Your task to perform on an android device: toggle javascript in the chrome app Image 0: 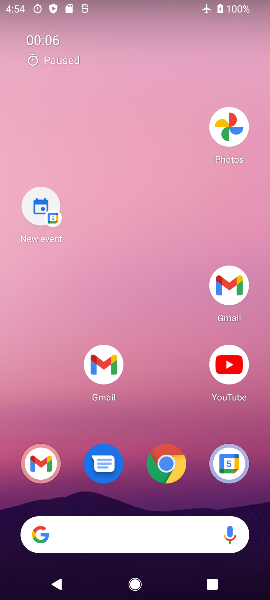
Step 0: click (178, 37)
Your task to perform on an android device: toggle javascript in the chrome app Image 1: 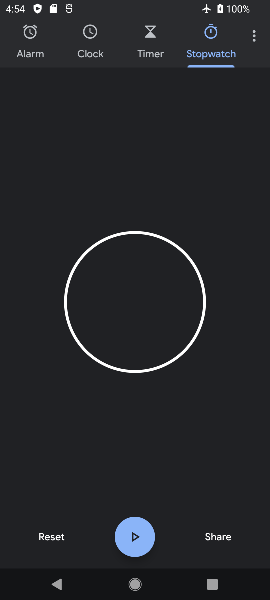
Step 1: press back button
Your task to perform on an android device: toggle javascript in the chrome app Image 2: 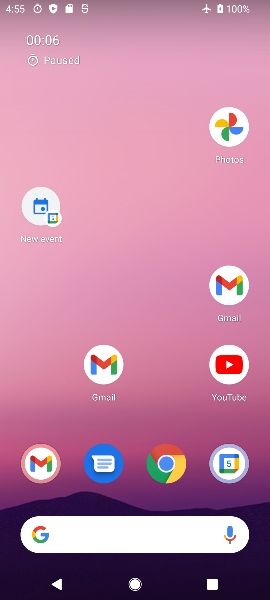
Step 2: drag from (182, 310) to (185, 133)
Your task to perform on an android device: toggle javascript in the chrome app Image 3: 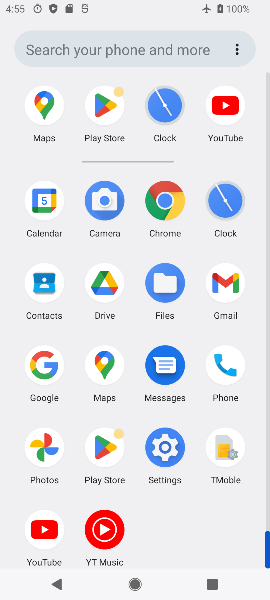
Step 3: click (165, 201)
Your task to perform on an android device: toggle javascript in the chrome app Image 4: 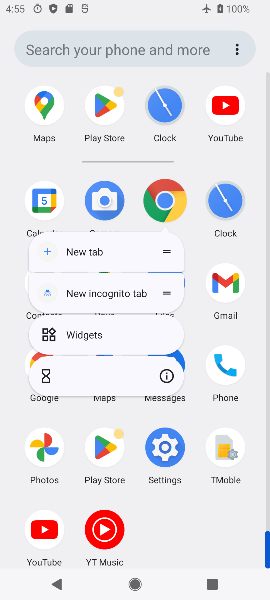
Step 4: click (167, 203)
Your task to perform on an android device: toggle javascript in the chrome app Image 5: 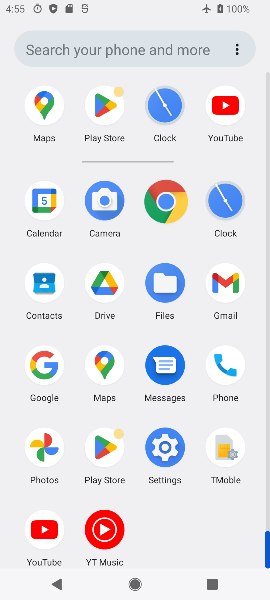
Step 5: click (169, 204)
Your task to perform on an android device: toggle javascript in the chrome app Image 6: 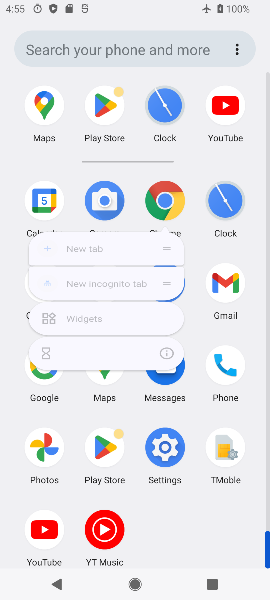
Step 6: click (169, 204)
Your task to perform on an android device: toggle javascript in the chrome app Image 7: 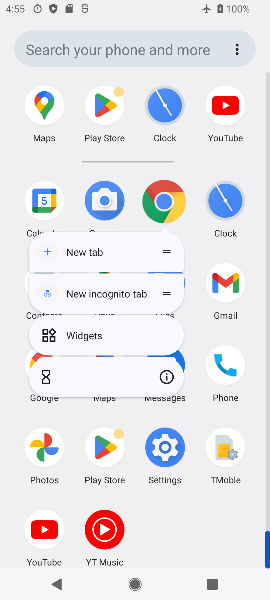
Step 7: click (168, 205)
Your task to perform on an android device: toggle javascript in the chrome app Image 8: 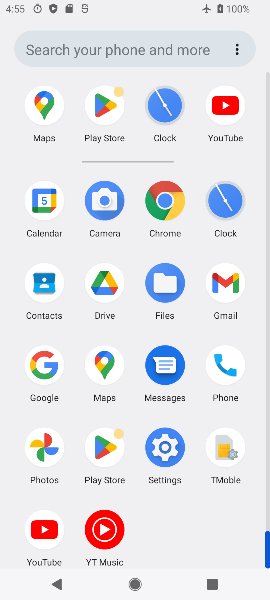
Step 8: click (160, 202)
Your task to perform on an android device: toggle javascript in the chrome app Image 9: 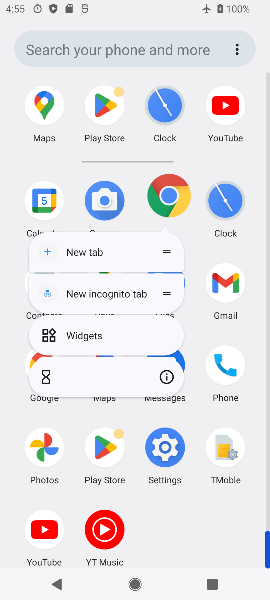
Step 9: click (164, 197)
Your task to perform on an android device: toggle javascript in the chrome app Image 10: 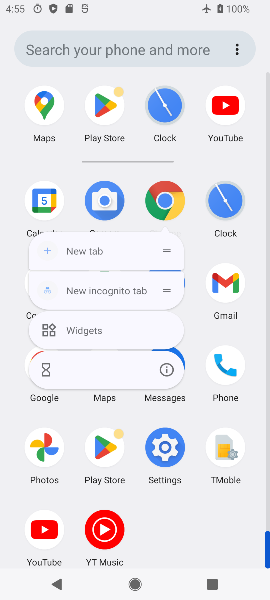
Step 10: click (166, 200)
Your task to perform on an android device: toggle javascript in the chrome app Image 11: 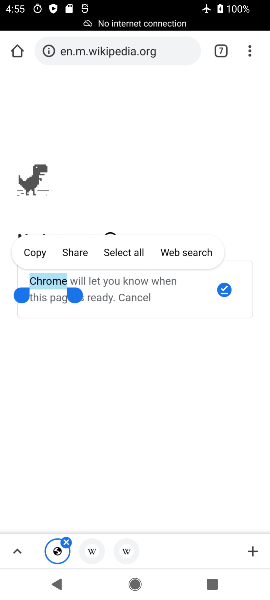
Step 11: click (166, 198)
Your task to perform on an android device: toggle javascript in the chrome app Image 12: 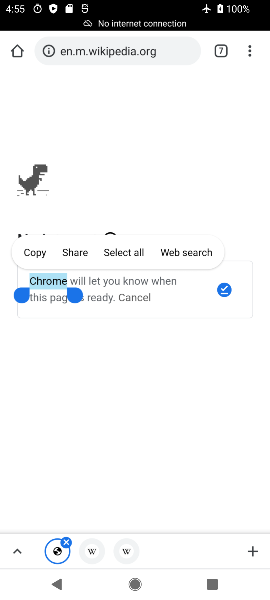
Step 12: click (170, 208)
Your task to perform on an android device: toggle javascript in the chrome app Image 13: 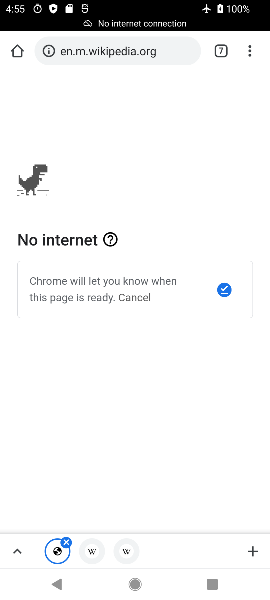
Step 13: drag from (247, 46) to (132, 495)
Your task to perform on an android device: toggle javascript in the chrome app Image 14: 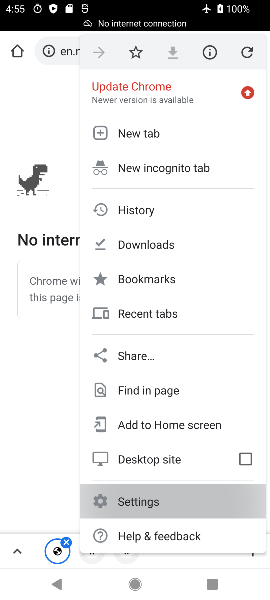
Step 14: click (132, 495)
Your task to perform on an android device: toggle javascript in the chrome app Image 15: 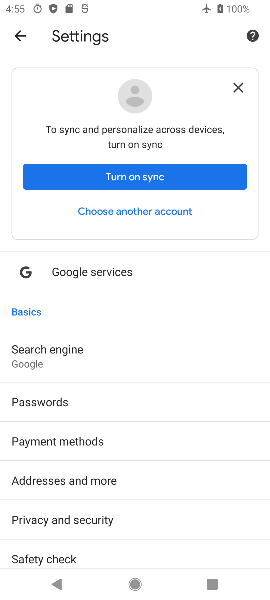
Step 15: drag from (94, 523) to (59, 272)
Your task to perform on an android device: toggle javascript in the chrome app Image 16: 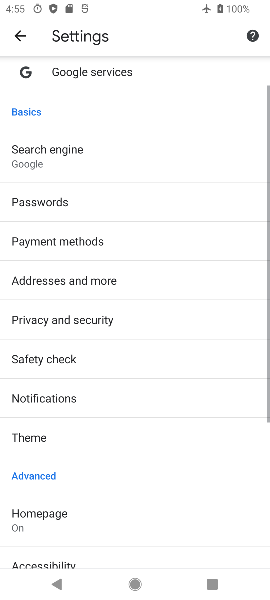
Step 16: drag from (100, 435) to (72, 212)
Your task to perform on an android device: toggle javascript in the chrome app Image 17: 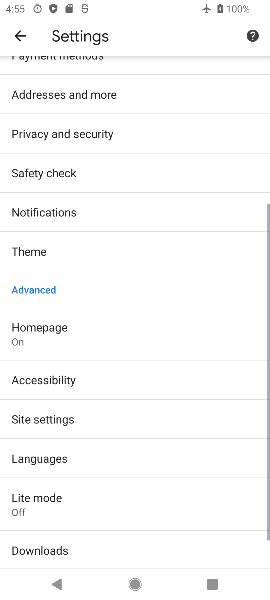
Step 17: drag from (90, 341) to (108, 177)
Your task to perform on an android device: toggle javascript in the chrome app Image 18: 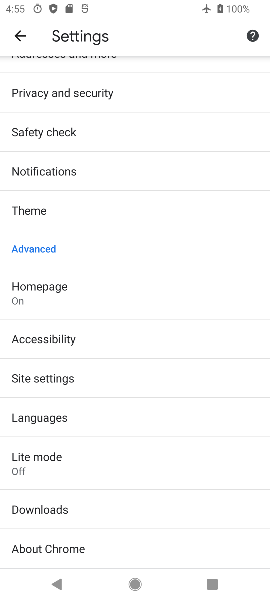
Step 18: click (32, 377)
Your task to perform on an android device: toggle javascript in the chrome app Image 19: 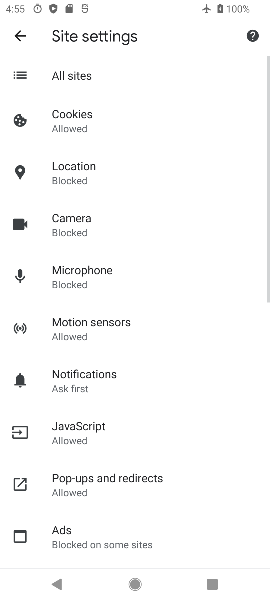
Step 19: click (54, 442)
Your task to perform on an android device: toggle javascript in the chrome app Image 20: 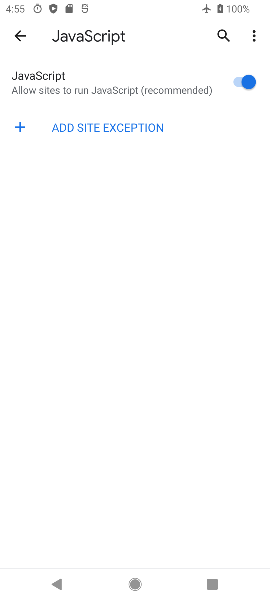
Step 20: click (244, 79)
Your task to perform on an android device: toggle javascript in the chrome app Image 21: 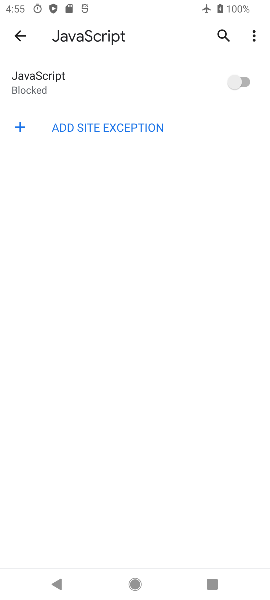
Step 21: task complete